Your task to perform on an android device: change the clock display to analog Image 0: 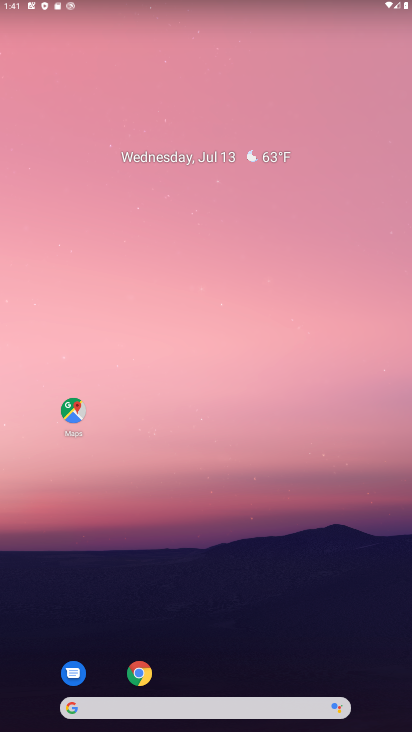
Step 0: drag from (306, 570) to (302, 221)
Your task to perform on an android device: change the clock display to analog Image 1: 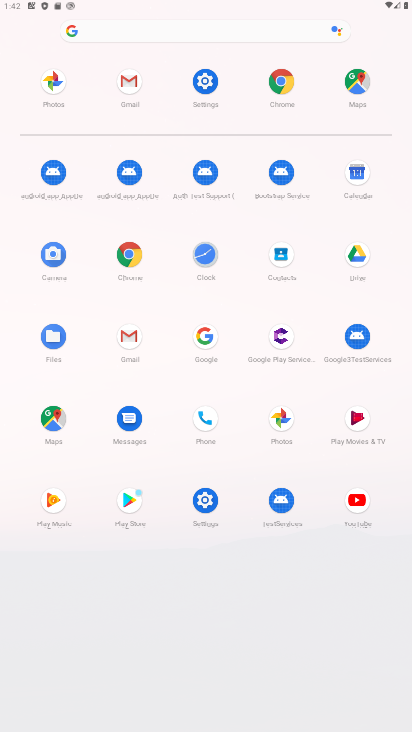
Step 1: click (211, 246)
Your task to perform on an android device: change the clock display to analog Image 2: 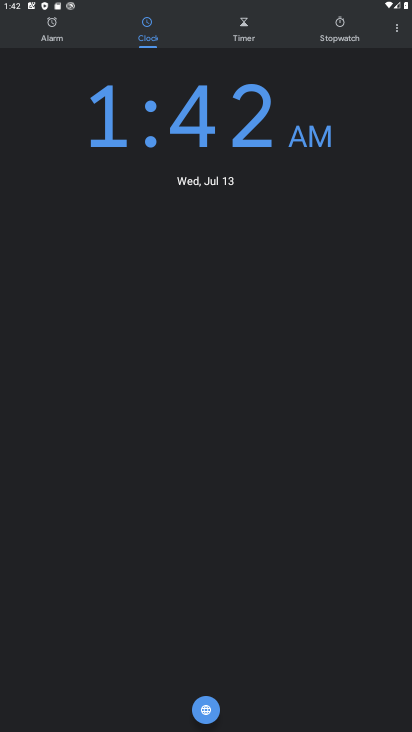
Step 2: click (400, 28)
Your task to perform on an android device: change the clock display to analog Image 3: 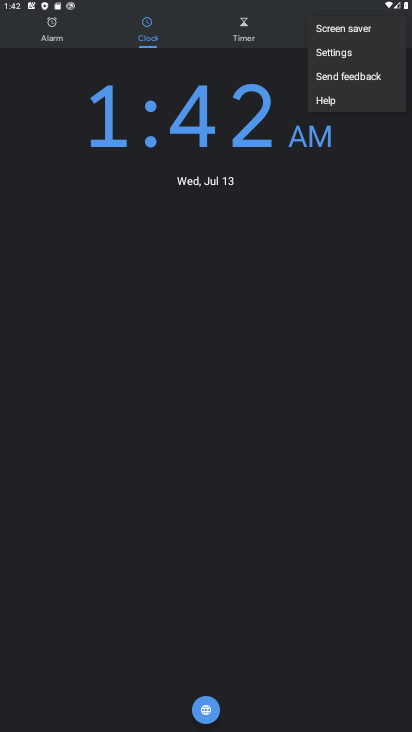
Step 3: click (359, 54)
Your task to perform on an android device: change the clock display to analog Image 4: 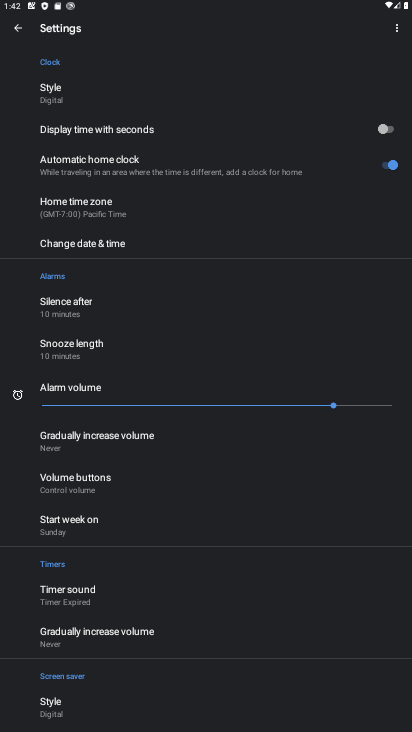
Step 4: click (58, 90)
Your task to perform on an android device: change the clock display to analog Image 5: 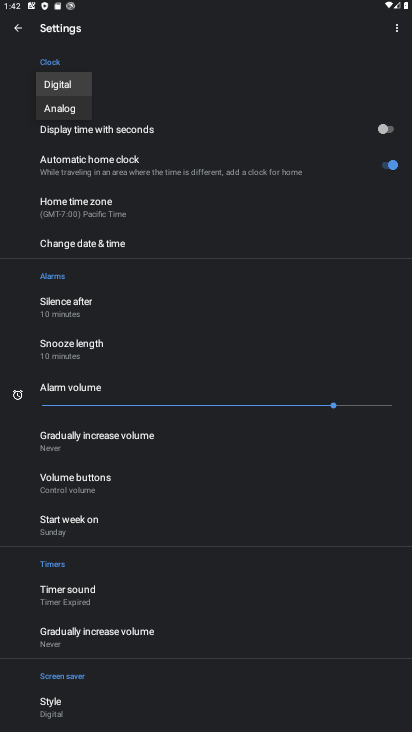
Step 5: click (66, 104)
Your task to perform on an android device: change the clock display to analog Image 6: 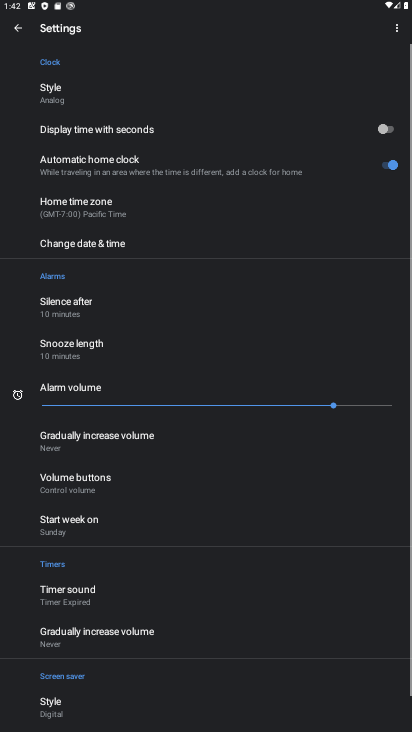
Step 6: task complete